Your task to perform on an android device: Add dell xps to the cart on walmart Image 0: 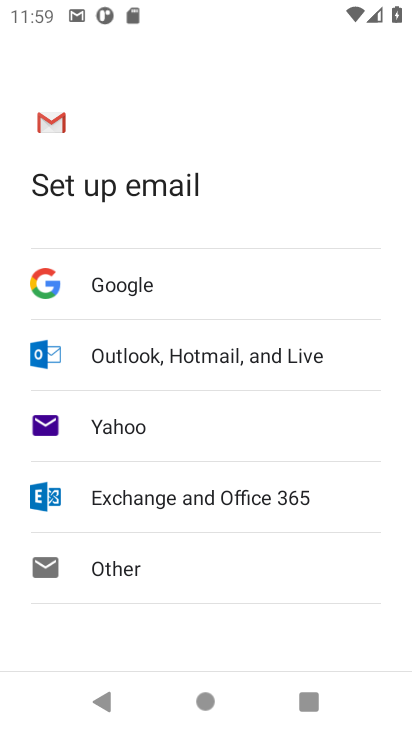
Step 0: press home button
Your task to perform on an android device: Add dell xps to the cart on walmart Image 1: 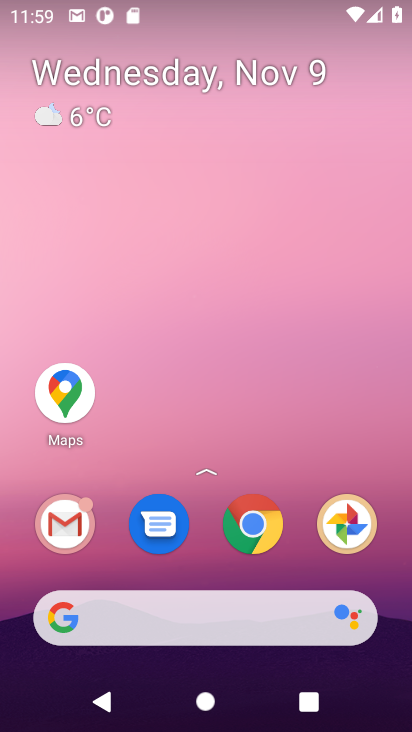
Step 1: click (270, 513)
Your task to perform on an android device: Add dell xps to the cart on walmart Image 2: 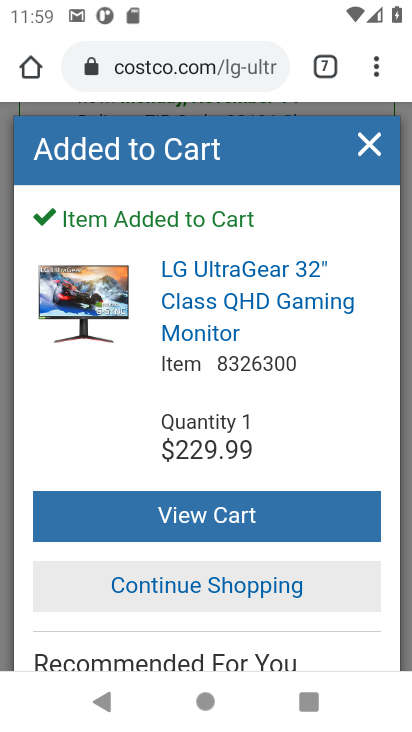
Step 2: click (332, 69)
Your task to perform on an android device: Add dell xps to the cart on walmart Image 3: 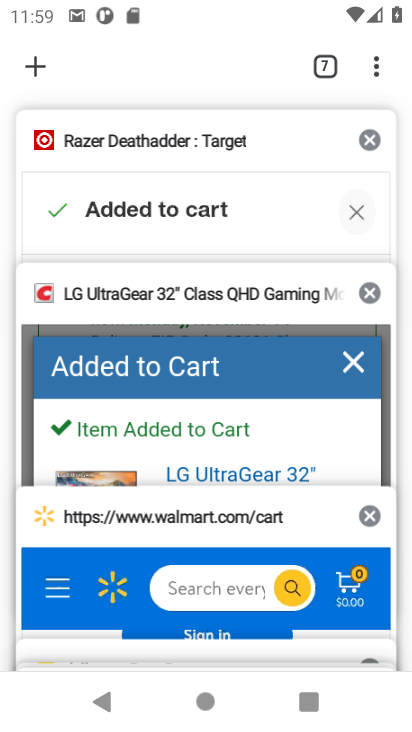
Step 3: click (174, 548)
Your task to perform on an android device: Add dell xps to the cart on walmart Image 4: 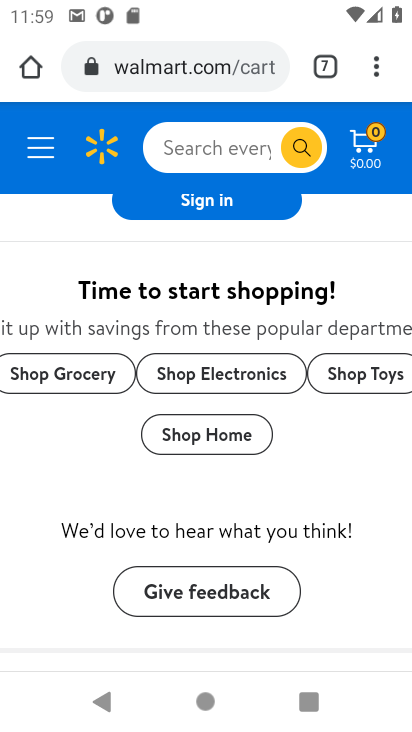
Step 4: click (212, 148)
Your task to perform on an android device: Add dell xps to the cart on walmart Image 5: 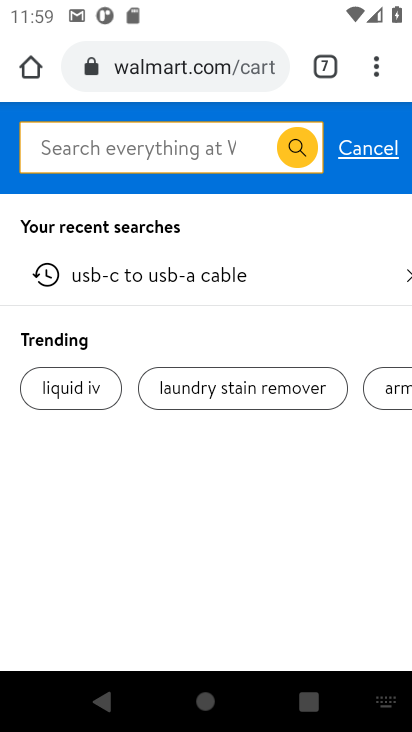
Step 5: type "dell xps"
Your task to perform on an android device: Add dell xps to the cart on walmart Image 6: 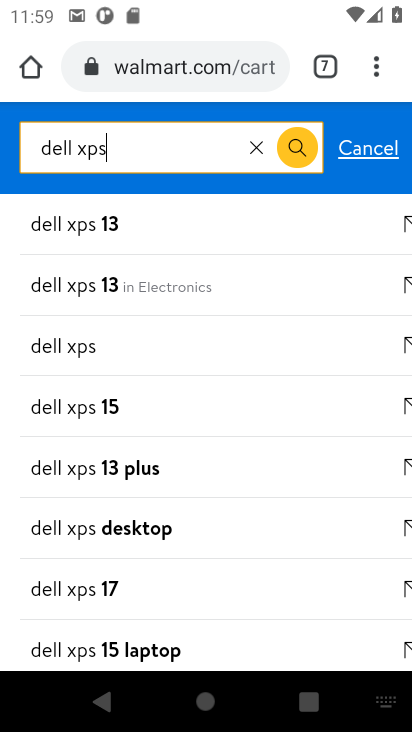
Step 6: click (97, 289)
Your task to perform on an android device: Add dell xps to the cart on walmart Image 7: 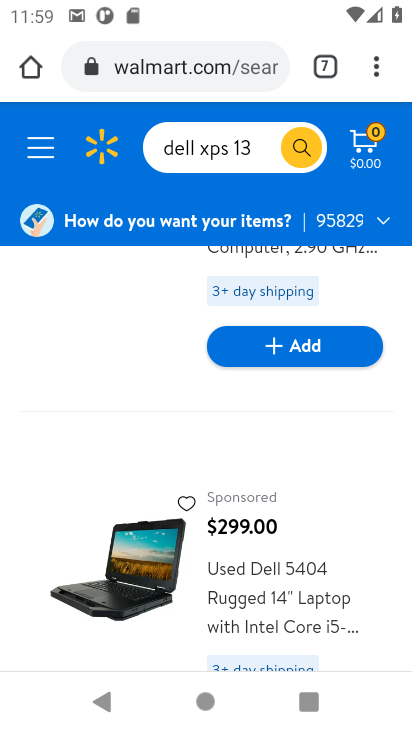
Step 7: click (313, 354)
Your task to perform on an android device: Add dell xps to the cart on walmart Image 8: 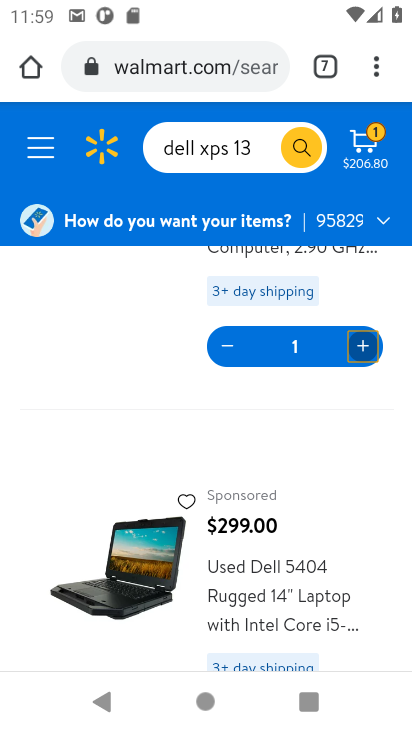
Step 8: task complete